Your task to perform on an android device: change the clock display to show seconds Image 0: 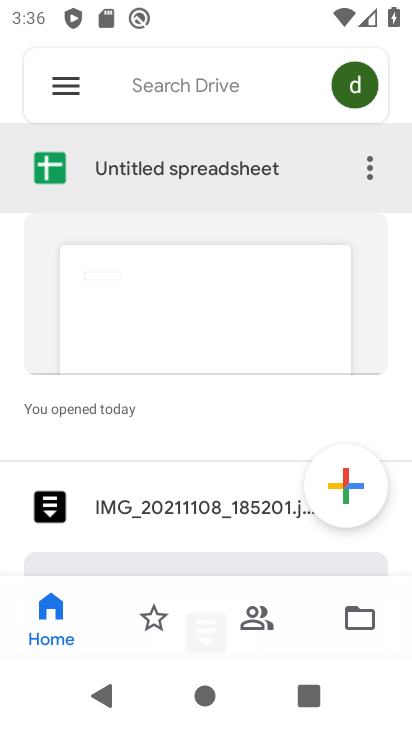
Step 0: press back button
Your task to perform on an android device: change the clock display to show seconds Image 1: 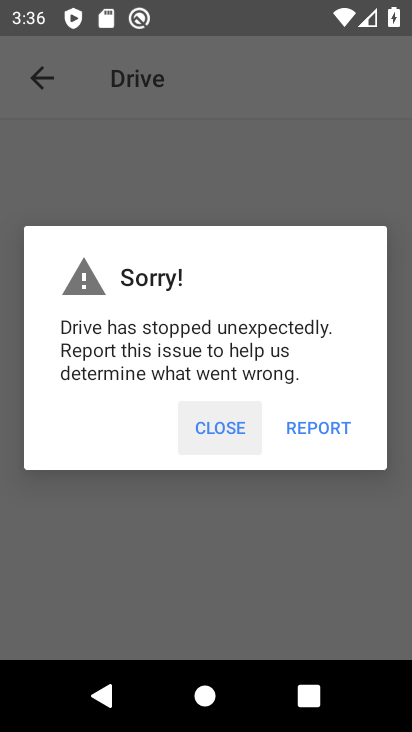
Step 1: press home button
Your task to perform on an android device: change the clock display to show seconds Image 2: 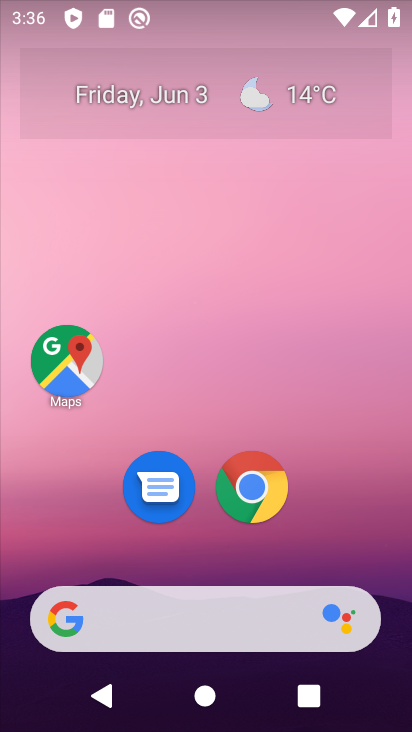
Step 2: drag from (196, 574) to (226, 2)
Your task to perform on an android device: change the clock display to show seconds Image 3: 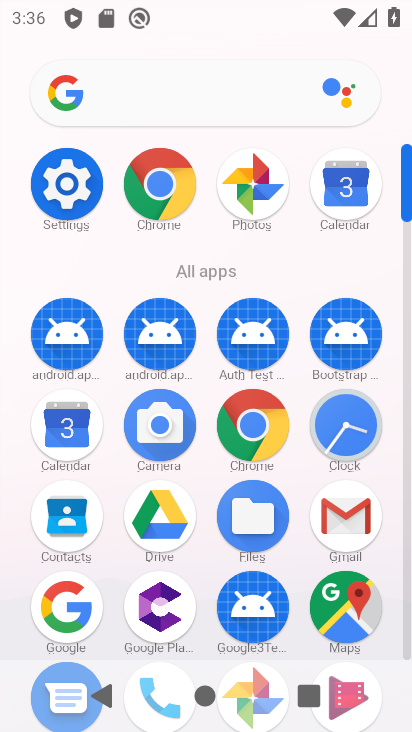
Step 3: click (351, 415)
Your task to perform on an android device: change the clock display to show seconds Image 4: 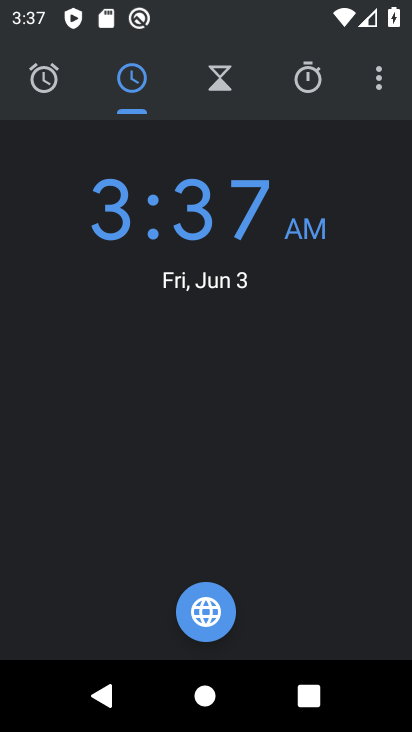
Step 4: click (365, 78)
Your task to perform on an android device: change the clock display to show seconds Image 5: 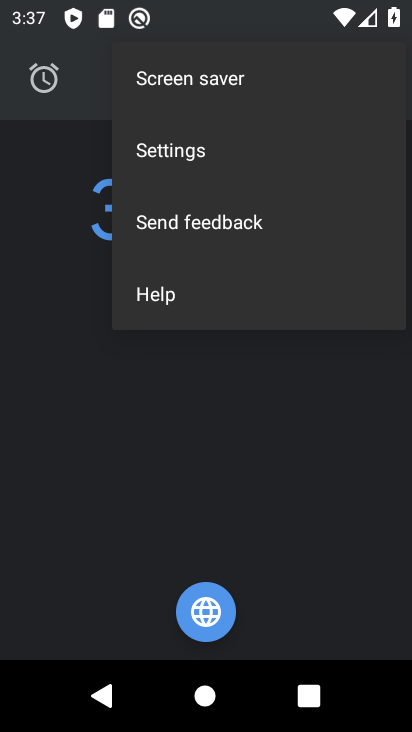
Step 5: click (179, 147)
Your task to perform on an android device: change the clock display to show seconds Image 6: 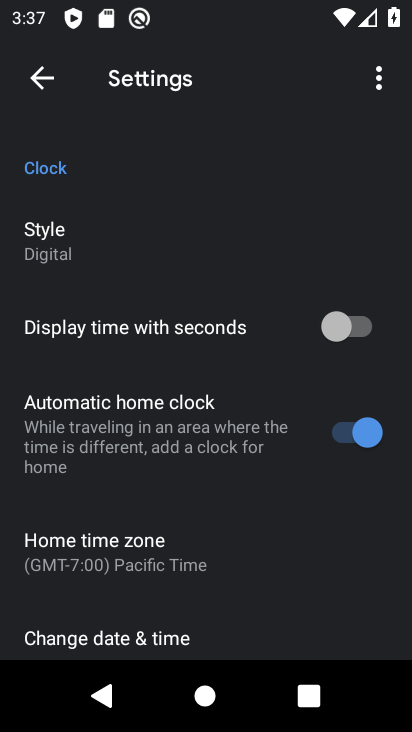
Step 6: click (351, 322)
Your task to perform on an android device: change the clock display to show seconds Image 7: 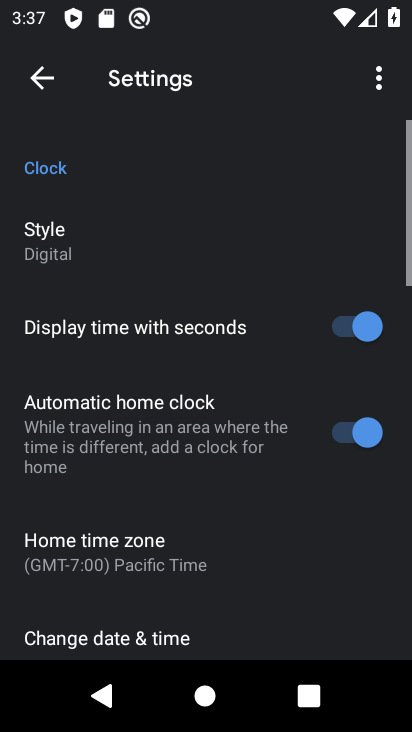
Step 7: task complete